Your task to perform on an android device: move a message to another label in the gmail app Image 0: 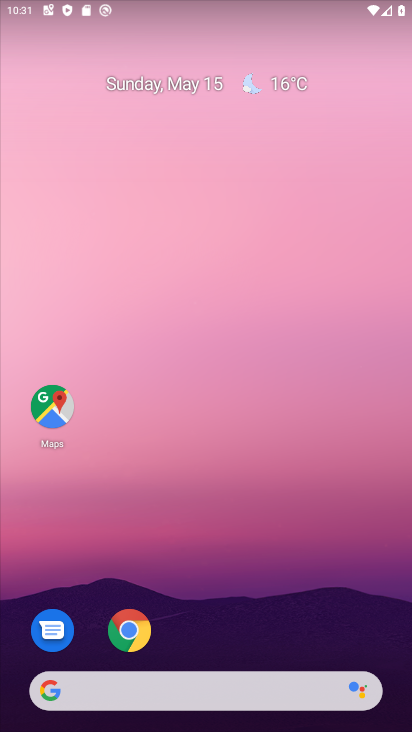
Step 0: drag from (220, 633) to (222, 49)
Your task to perform on an android device: move a message to another label in the gmail app Image 1: 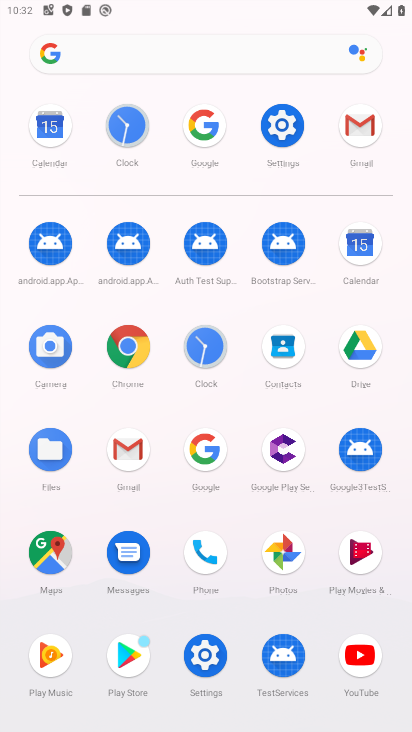
Step 1: click (349, 137)
Your task to perform on an android device: move a message to another label in the gmail app Image 2: 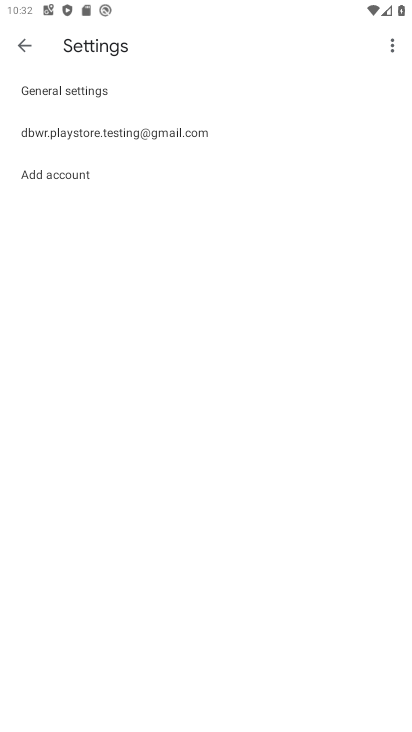
Step 2: click (17, 30)
Your task to perform on an android device: move a message to another label in the gmail app Image 3: 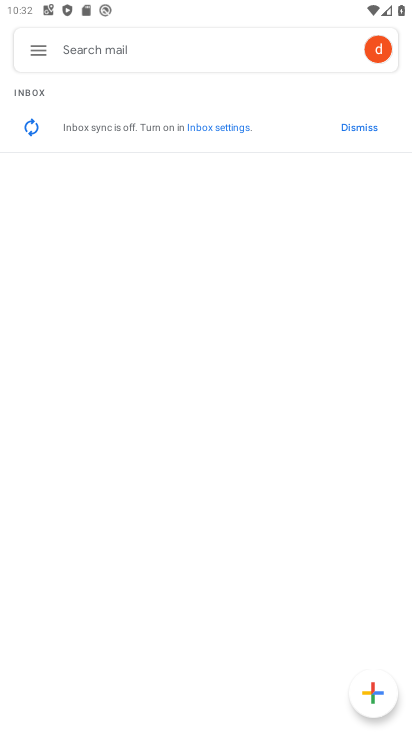
Step 3: click (41, 51)
Your task to perform on an android device: move a message to another label in the gmail app Image 4: 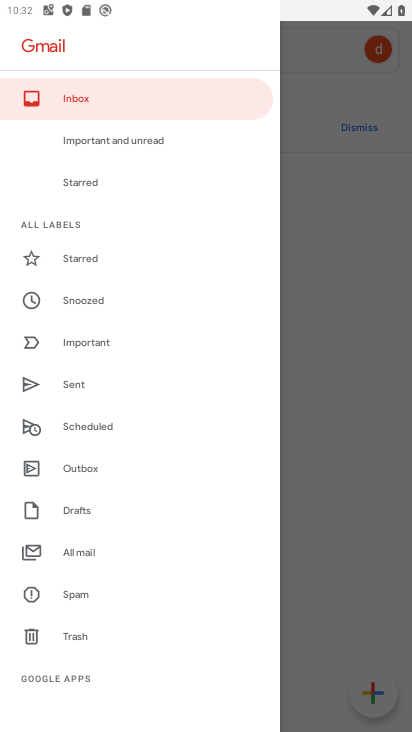
Step 4: drag from (106, 611) to (150, 370)
Your task to perform on an android device: move a message to another label in the gmail app Image 5: 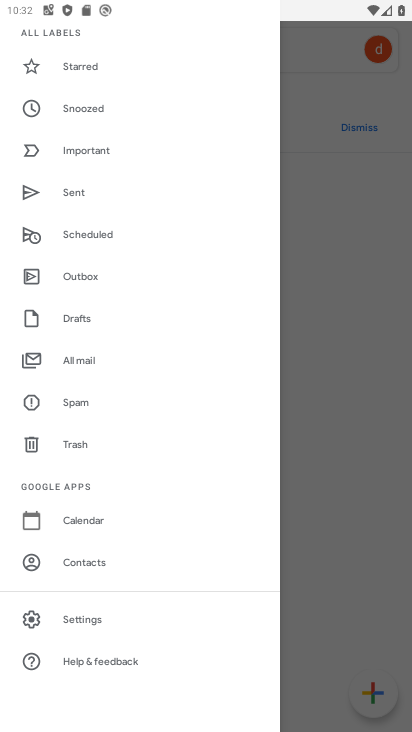
Step 5: click (77, 359)
Your task to perform on an android device: move a message to another label in the gmail app Image 6: 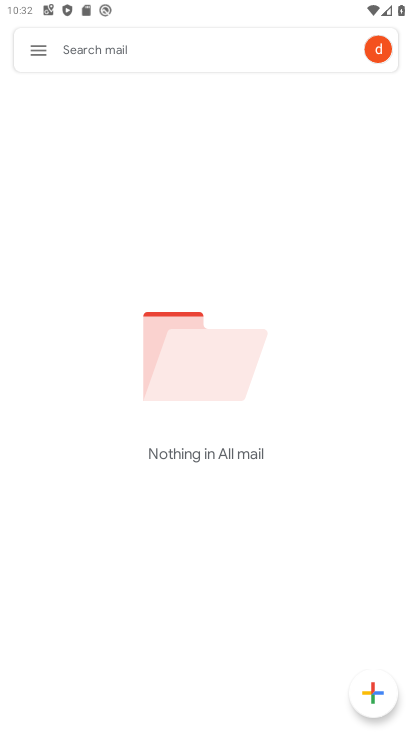
Step 6: task complete